Your task to perform on an android device: Go to Google Image 0: 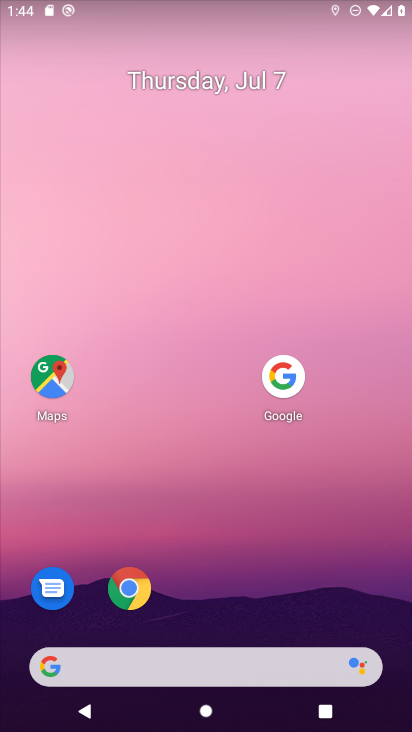
Step 0: click (276, 371)
Your task to perform on an android device: Go to Google Image 1: 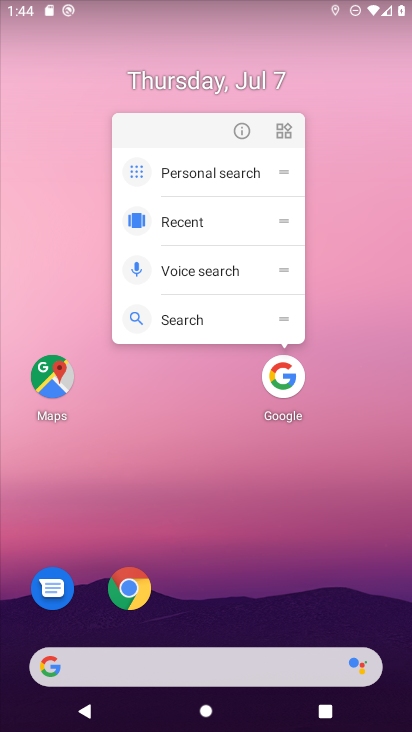
Step 1: click (291, 386)
Your task to perform on an android device: Go to Google Image 2: 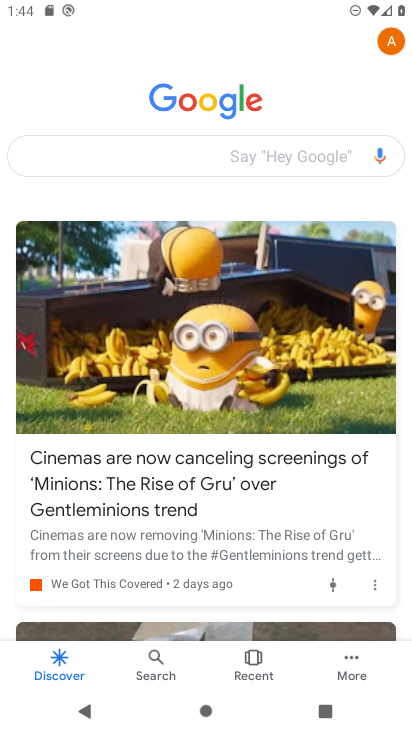
Step 2: task complete